Your task to perform on an android device: open the mobile data screen to see how much data has been used Image 0: 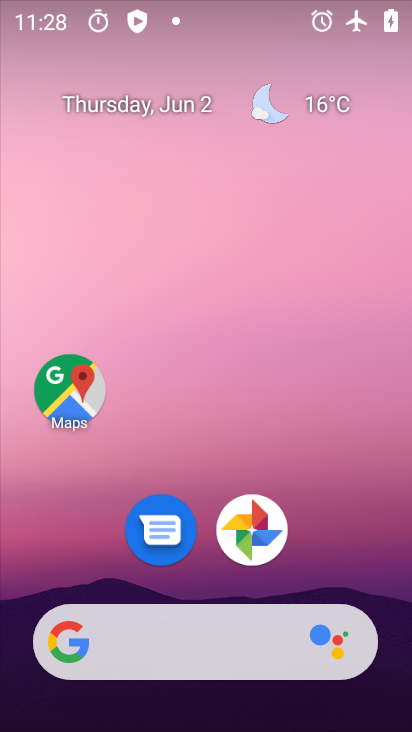
Step 0: drag from (256, 624) to (222, 42)
Your task to perform on an android device: open the mobile data screen to see how much data has been used Image 1: 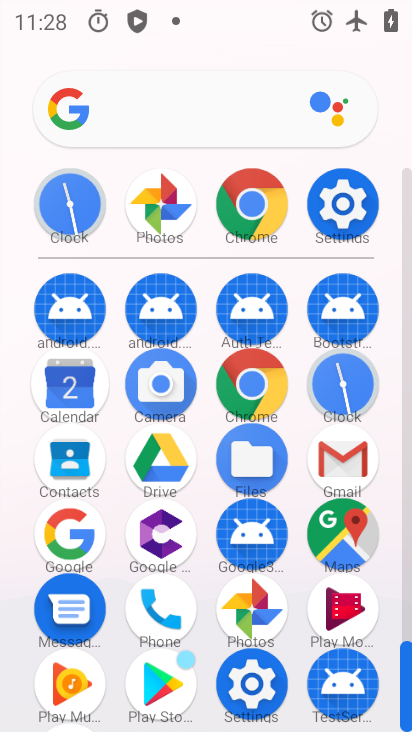
Step 1: click (316, 427)
Your task to perform on an android device: open the mobile data screen to see how much data has been used Image 2: 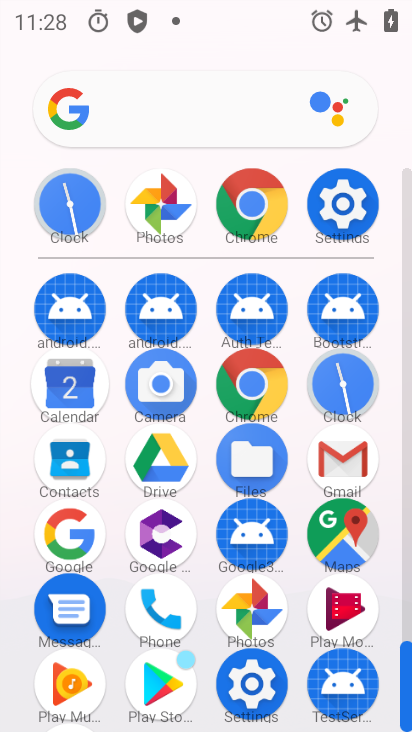
Step 2: click (329, 207)
Your task to perform on an android device: open the mobile data screen to see how much data has been used Image 3: 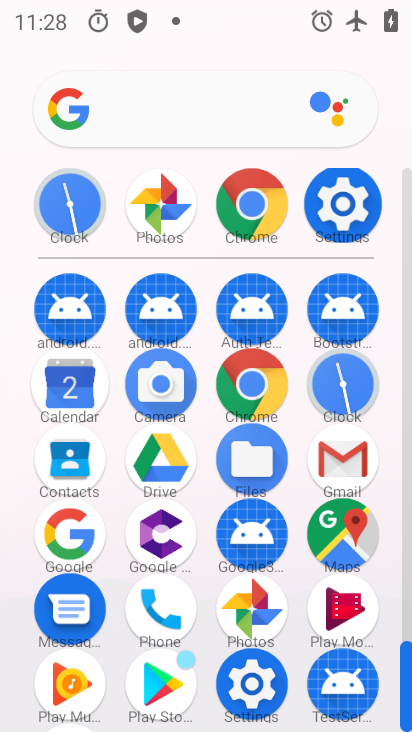
Step 3: click (344, 203)
Your task to perform on an android device: open the mobile data screen to see how much data has been used Image 4: 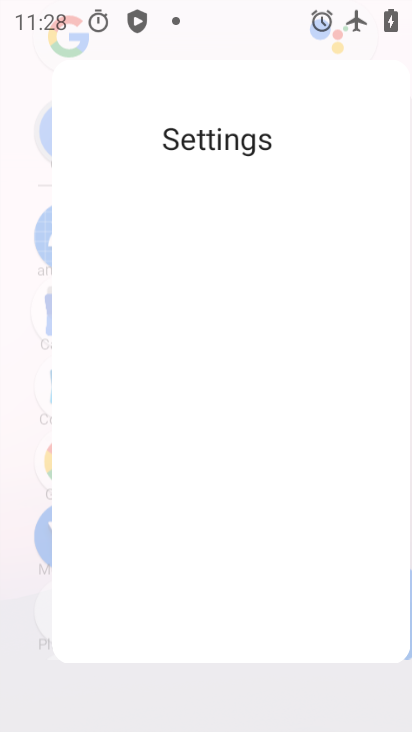
Step 4: click (344, 203)
Your task to perform on an android device: open the mobile data screen to see how much data has been used Image 5: 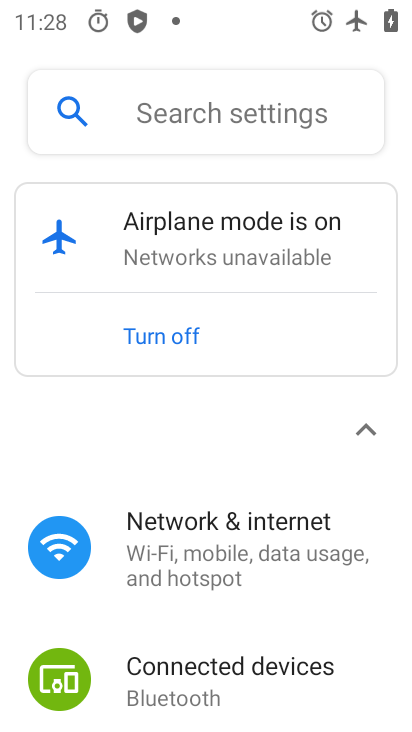
Step 5: click (194, 541)
Your task to perform on an android device: open the mobile data screen to see how much data has been used Image 6: 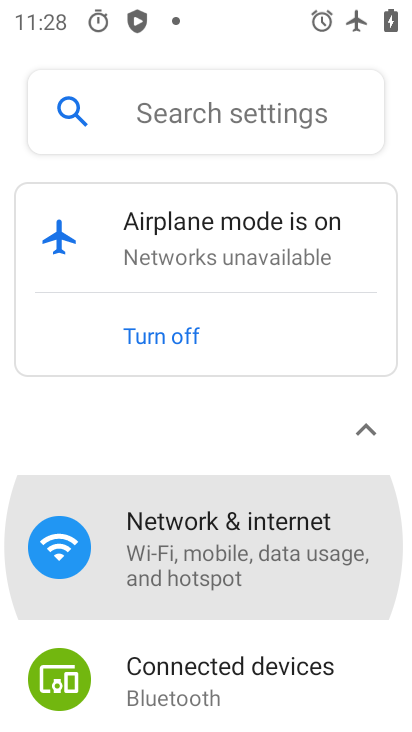
Step 6: click (203, 539)
Your task to perform on an android device: open the mobile data screen to see how much data has been used Image 7: 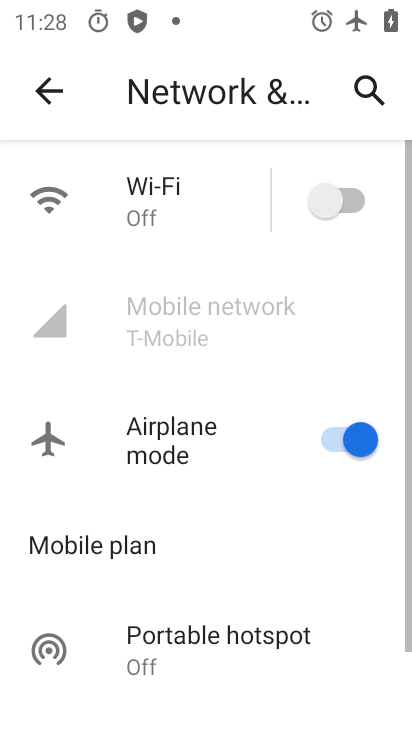
Step 7: click (211, 543)
Your task to perform on an android device: open the mobile data screen to see how much data has been used Image 8: 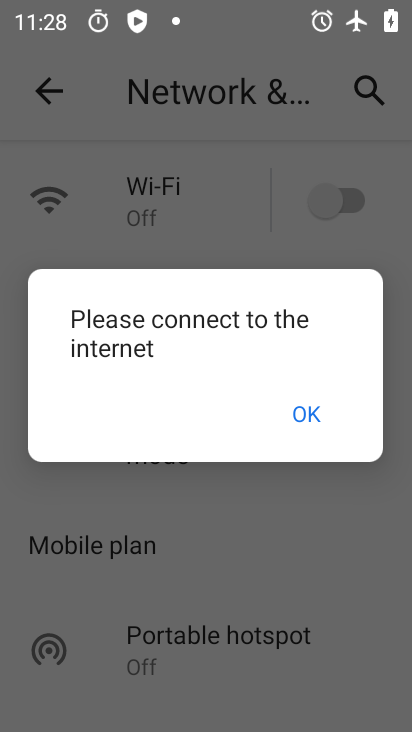
Step 8: click (311, 410)
Your task to perform on an android device: open the mobile data screen to see how much data has been used Image 9: 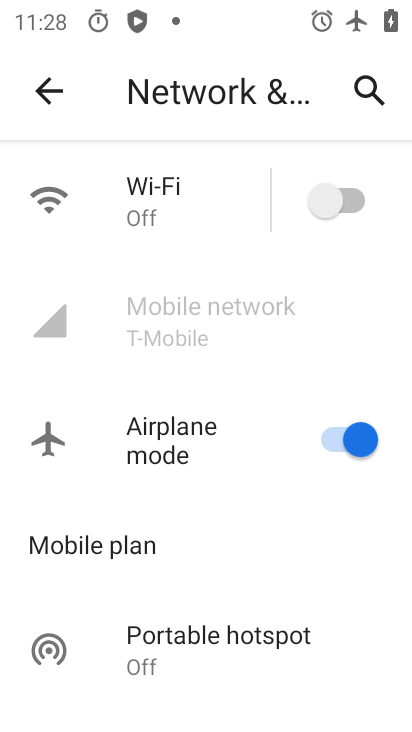
Step 9: click (326, 198)
Your task to perform on an android device: open the mobile data screen to see how much data has been used Image 10: 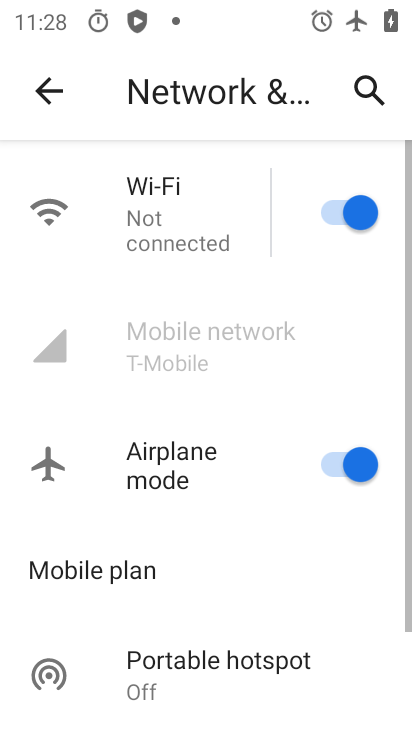
Step 10: click (355, 472)
Your task to perform on an android device: open the mobile data screen to see how much data has been used Image 11: 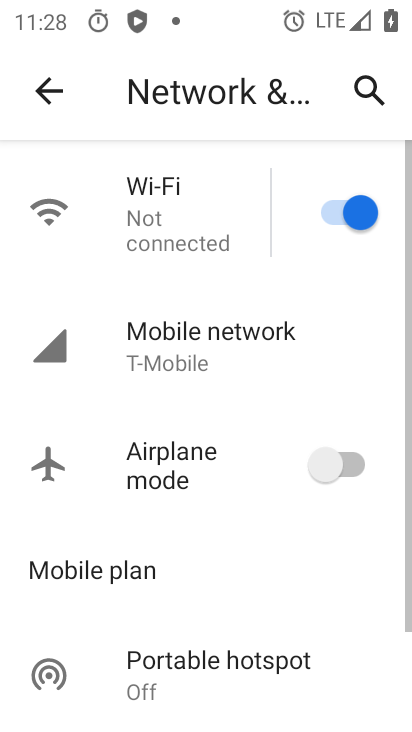
Step 11: click (182, 340)
Your task to perform on an android device: open the mobile data screen to see how much data has been used Image 12: 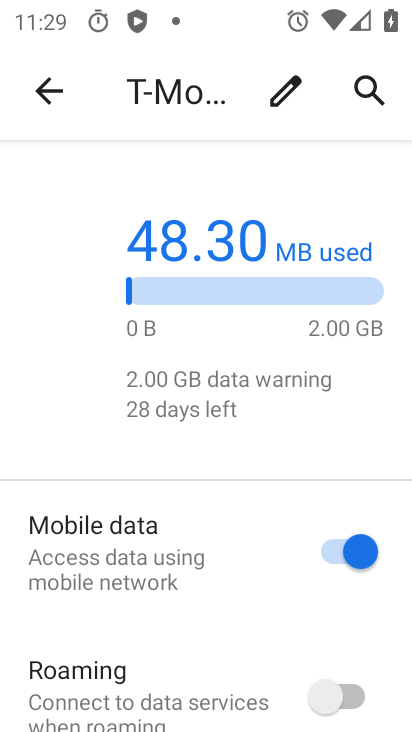
Step 12: click (44, 86)
Your task to perform on an android device: open the mobile data screen to see how much data has been used Image 13: 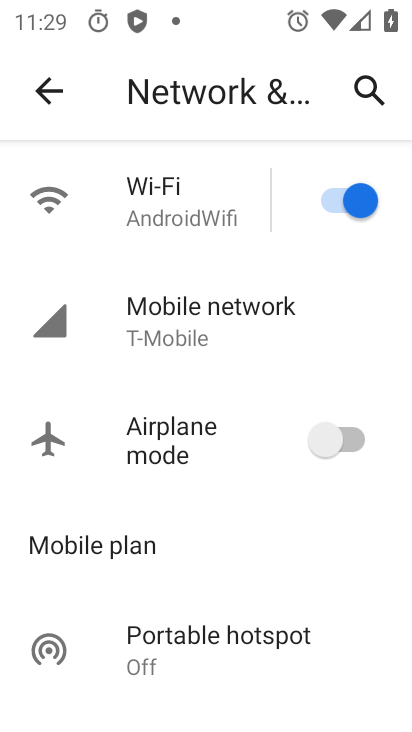
Step 13: task complete